Your task to perform on an android device: empty trash in the gmail app Image 0: 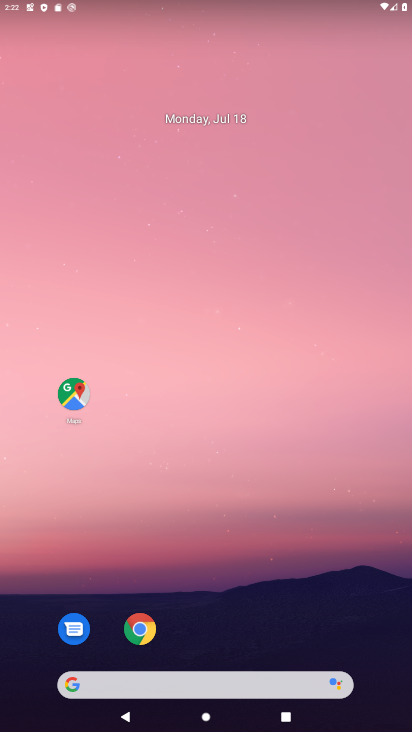
Step 0: drag from (201, 619) to (232, 233)
Your task to perform on an android device: empty trash in the gmail app Image 1: 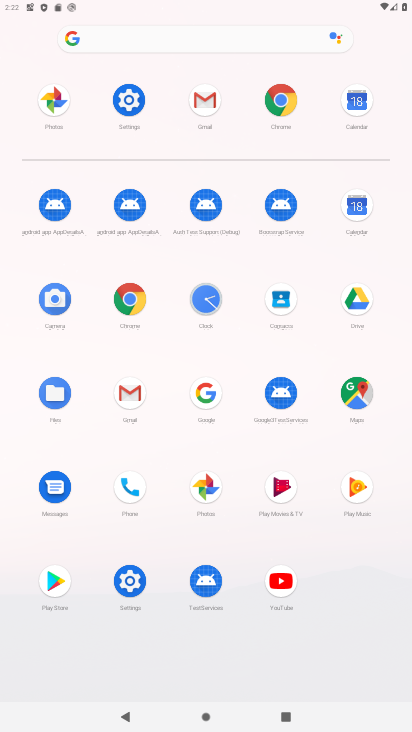
Step 1: click (204, 119)
Your task to perform on an android device: empty trash in the gmail app Image 2: 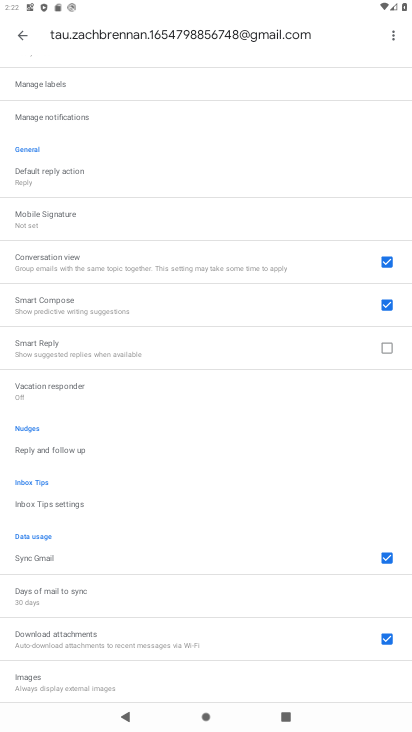
Step 2: click (20, 32)
Your task to perform on an android device: empty trash in the gmail app Image 3: 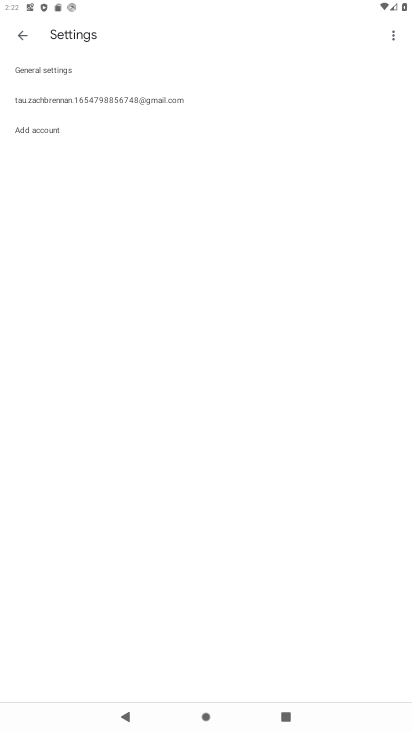
Step 3: click (28, 37)
Your task to perform on an android device: empty trash in the gmail app Image 4: 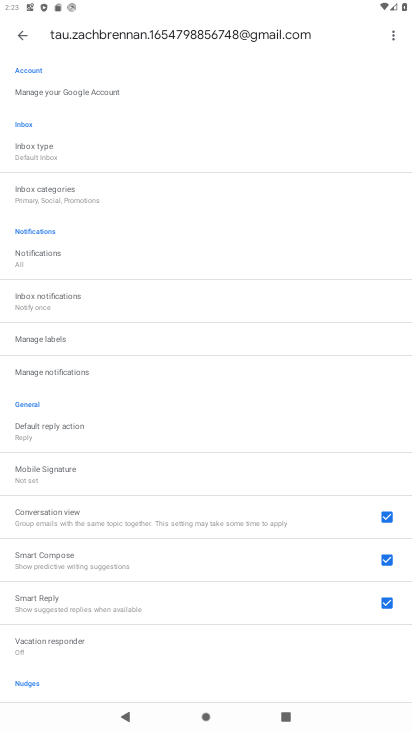
Step 4: click (19, 34)
Your task to perform on an android device: empty trash in the gmail app Image 5: 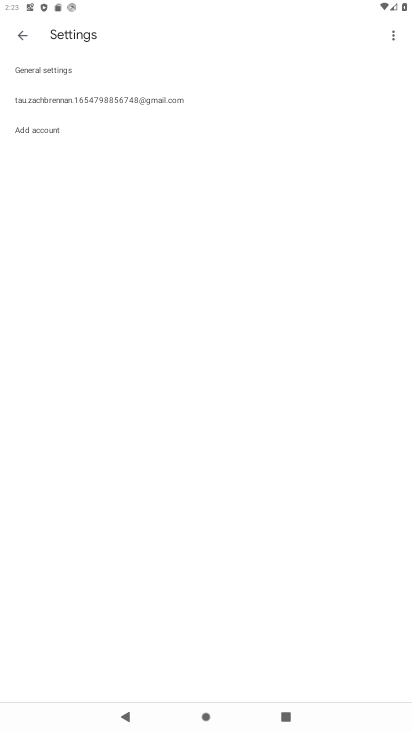
Step 5: click (19, 34)
Your task to perform on an android device: empty trash in the gmail app Image 6: 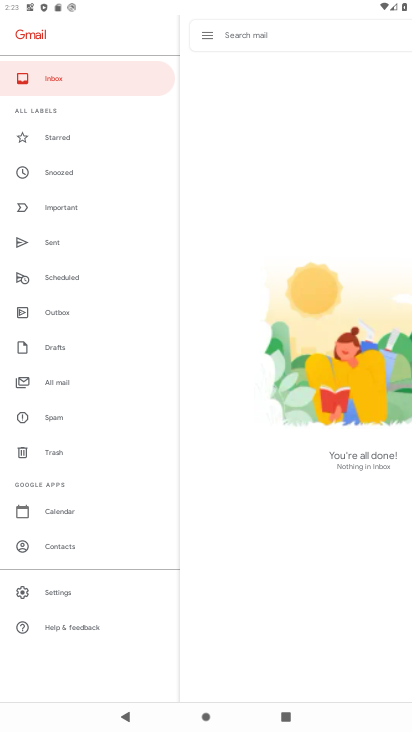
Step 6: click (66, 449)
Your task to perform on an android device: empty trash in the gmail app Image 7: 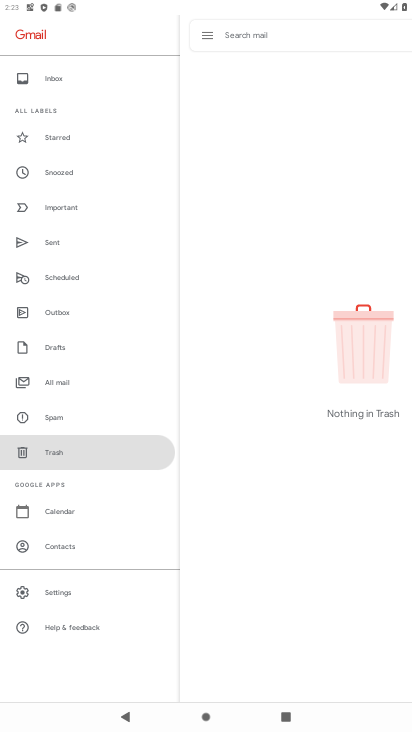
Step 7: task complete